Your task to perform on an android device: check battery use Image 0: 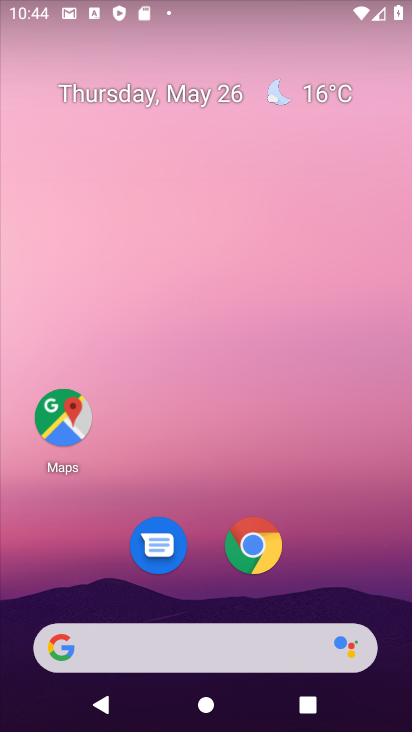
Step 0: press home button
Your task to perform on an android device: check battery use Image 1: 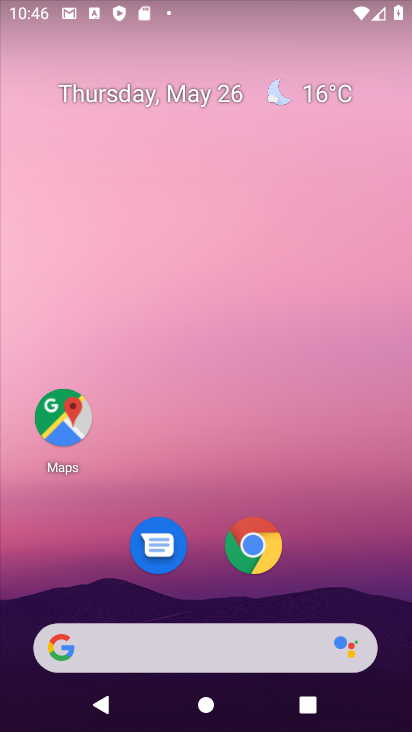
Step 1: drag from (283, 600) to (284, 193)
Your task to perform on an android device: check battery use Image 2: 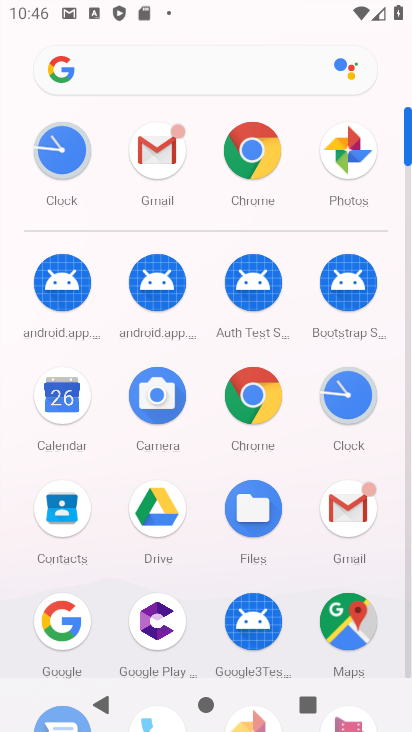
Step 2: drag from (387, 658) to (369, 294)
Your task to perform on an android device: check battery use Image 3: 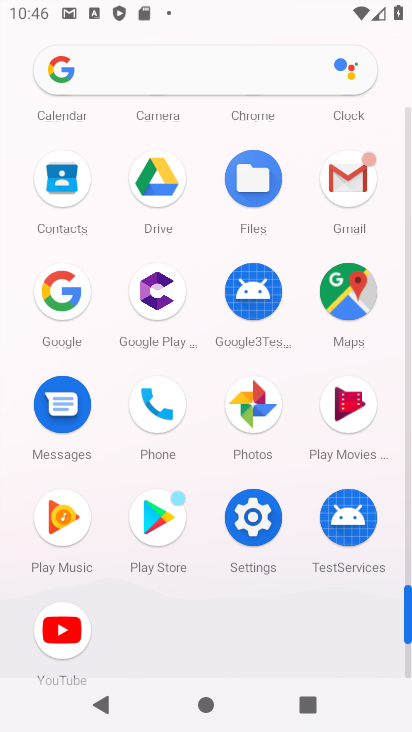
Step 3: click (254, 524)
Your task to perform on an android device: check battery use Image 4: 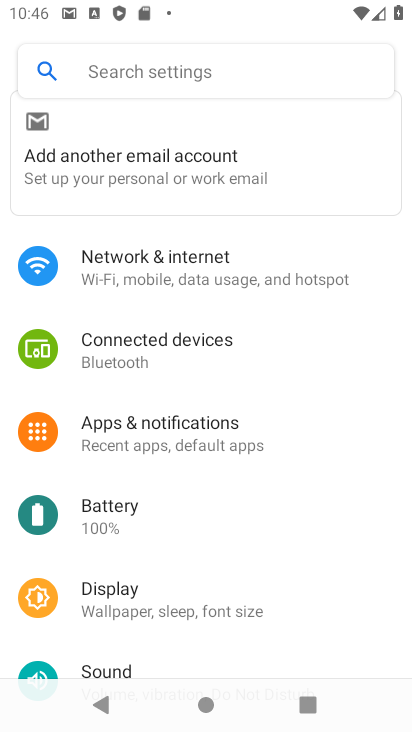
Step 4: click (111, 511)
Your task to perform on an android device: check battery use Image 5: 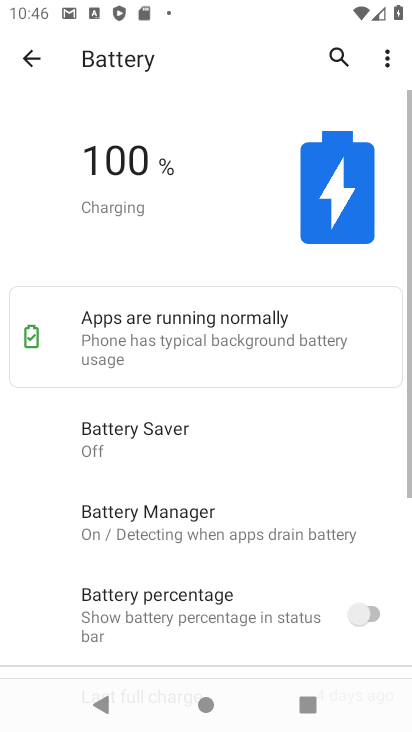
Step 5: click (389, 68)
Your task to perform on an android device: check battery use Image 6: 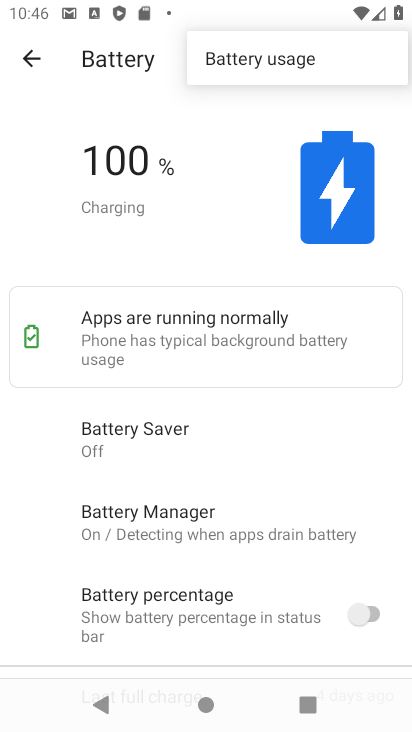
Step 6: click (266, 55)
Your task to perform on an android device: check battery use Image 7: 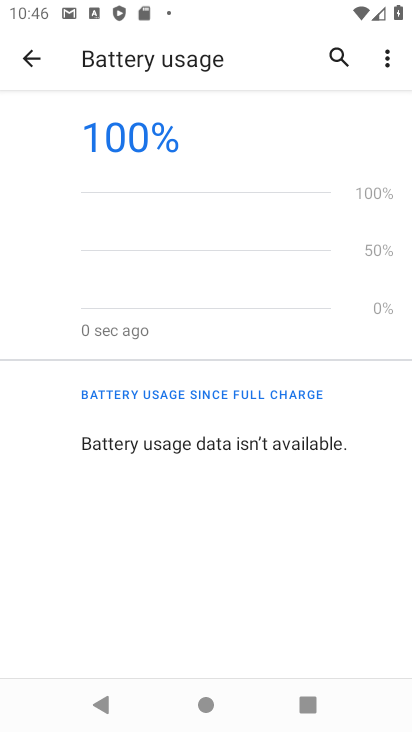
Step 7: task complete